Your task to perform on an android device: Go to Amazon Image 0: 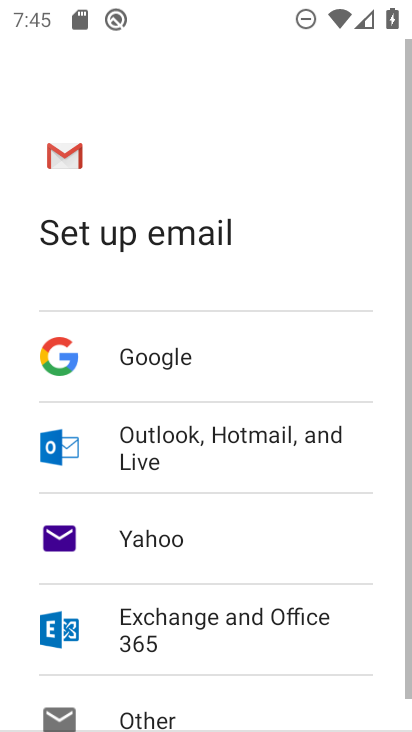
Step 0: press home button
Your task to perform on an android device: Go to Amazon Image 1: 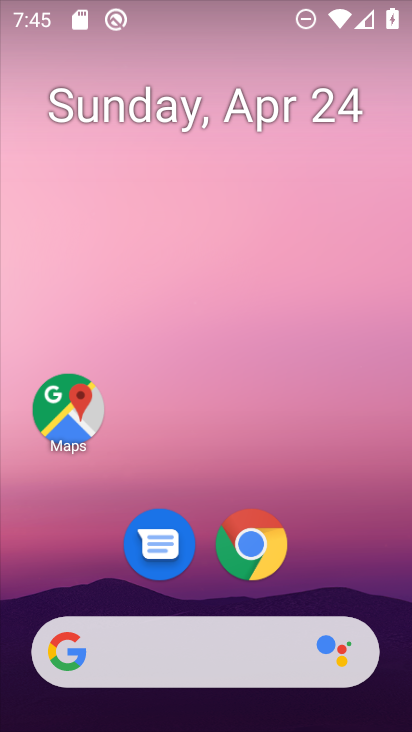
Step 1: drag from (228, 640) to (380, 119)
Your task to perform on an android device: Go to Amazon Image 2: 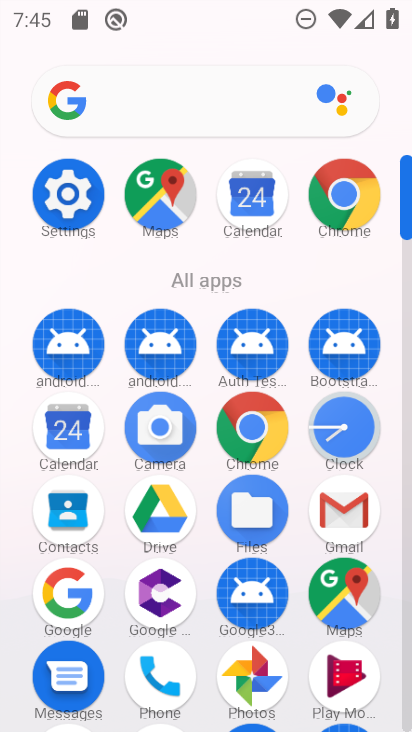
Step 2: click (351, 208)
Your task to perform on an android device: Go to Amazon Image 3: 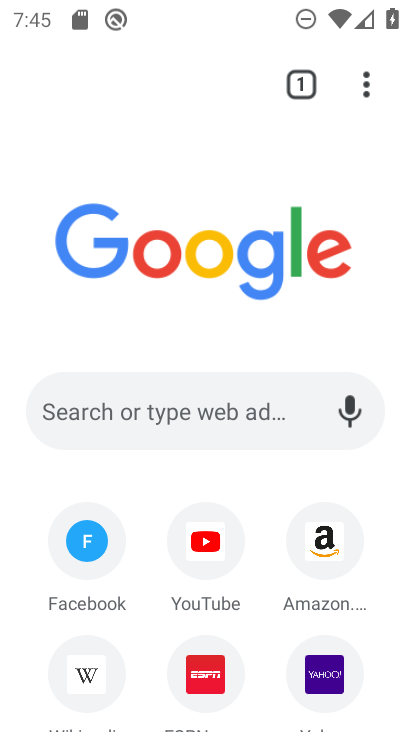
Step 3: click (319, 545)
Your task to perform on an android device: Go to Amazon Image 4: 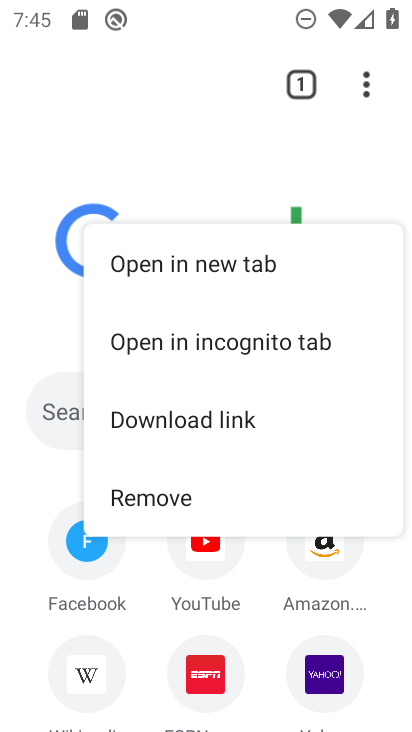
Step 4: click (327, 558)
Your task to perform on an android device: Go to Amazon Image 5: 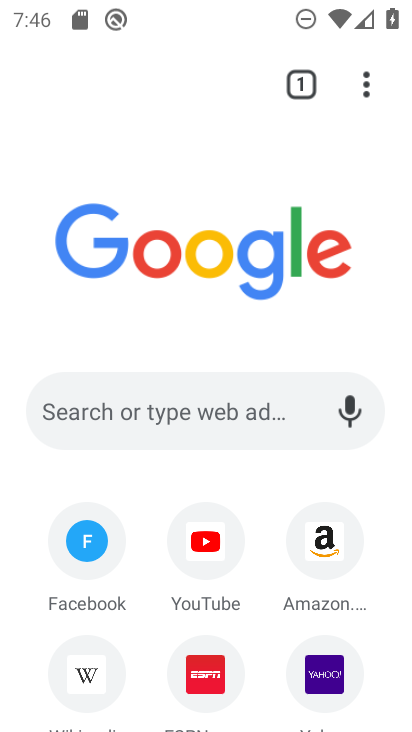
Step 5: click (326, 548)
Your task to perform on an android device: Go to Amazon Image 6: 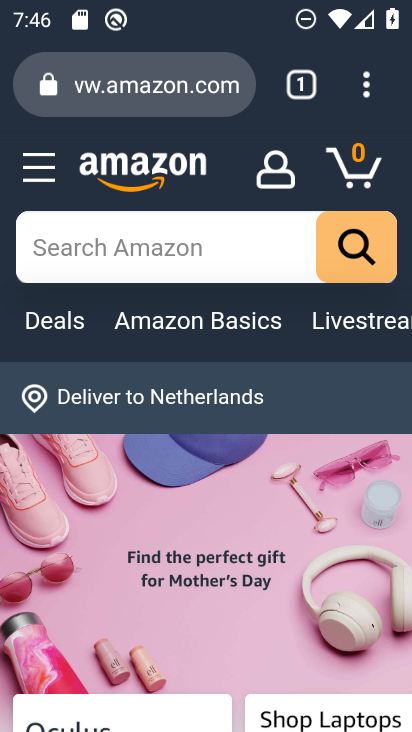
Step 6: task complete